Your task to perform on an android device: Open accessibility settings Image 0: 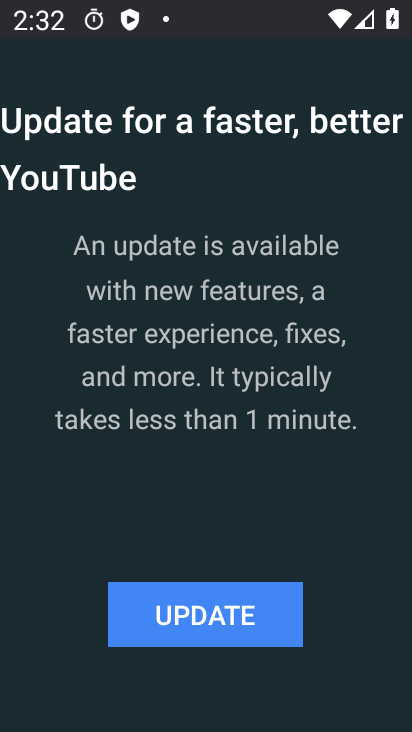
Step 0: press home button
Your task to perform on an android device: Open accessibility settings Image 1: 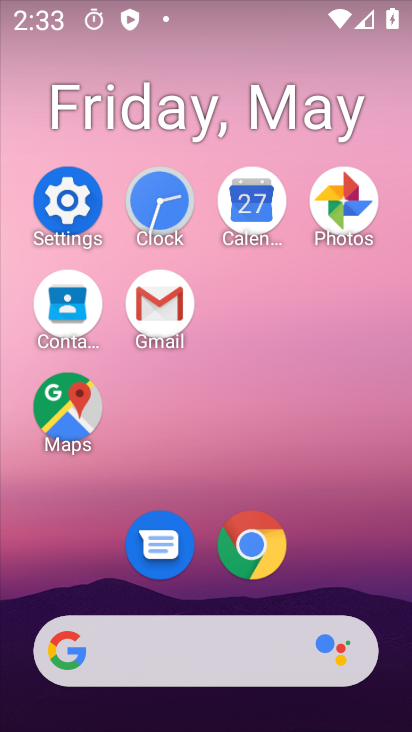
Step 1: click (73, 207)
Your task to perform on an android device: Open accessibility settings Image 2: 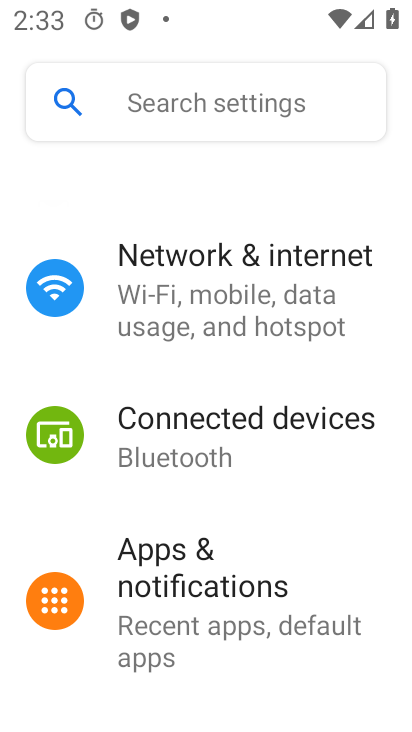
Step 2: drag from (315, 629) to (330, 178)
Your task to perform on an android device: Open accessibility settings Image 3: 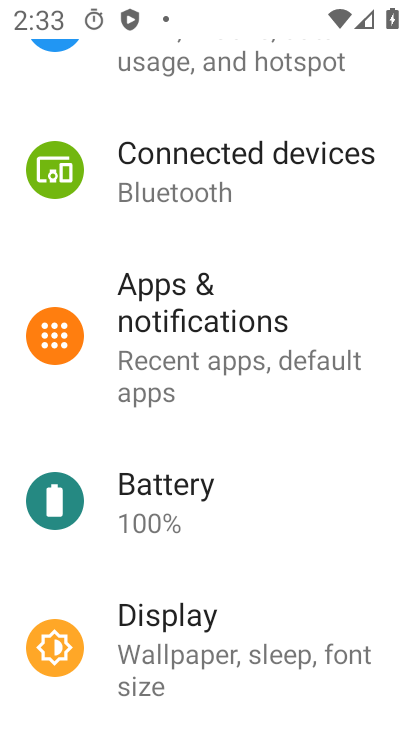
Step 3: drag from (331, 612) to (334, 171)
Your task to perform on an android device: Open accessibility settings Image 4: 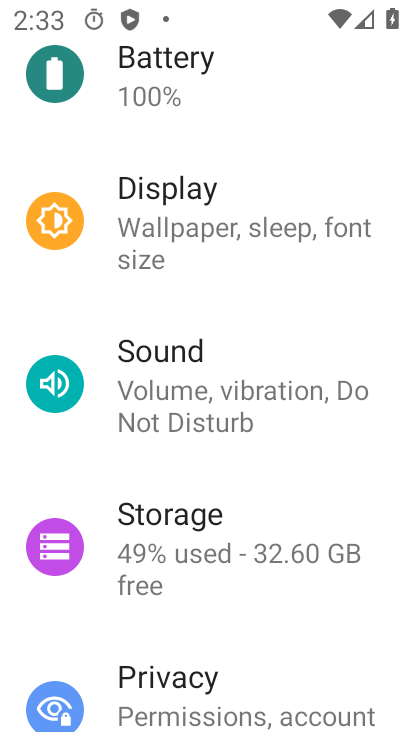
Step 4: drag from (320, 603) to (319, 153)
Your task to perform on an android device: Open accessibility settings Image 5: 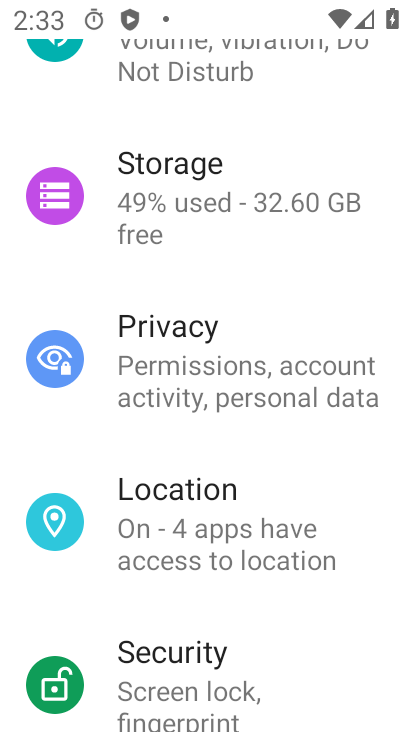
Step 5: drag from (255, 618) to (319, 139)
Your task to perform on an android device: Open accessibility settings Image 6: 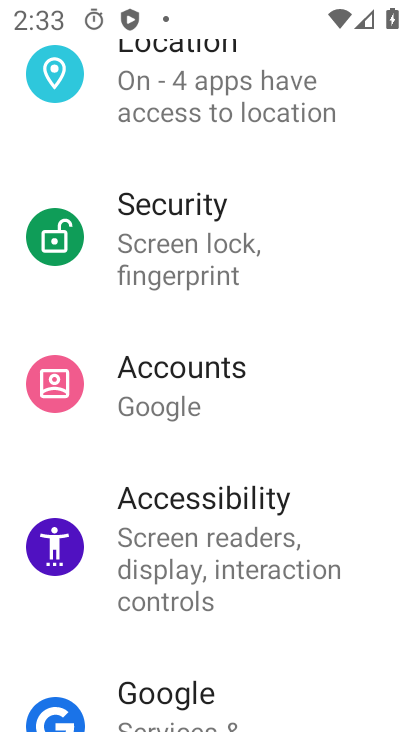
Step 6: click (259, 506)
Your task to perform on an android device: Open accessibility settings Image 7: 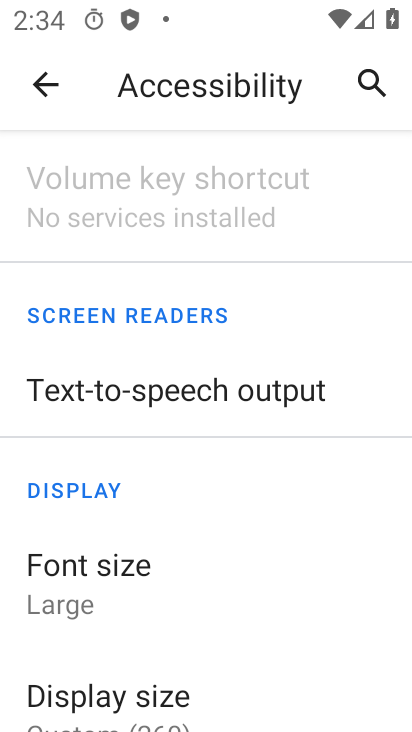
Step 7: task complete